Your task to perform on an android device: Open notification settings Image 0: 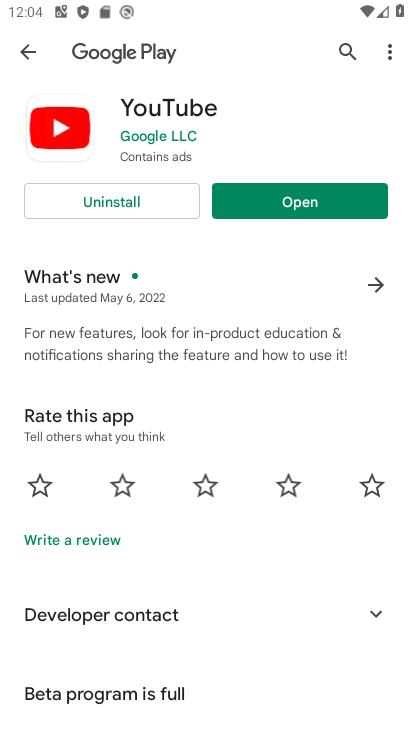
Step 0: press home button
Your task to perform on an android device: Open notification settings Image 1: 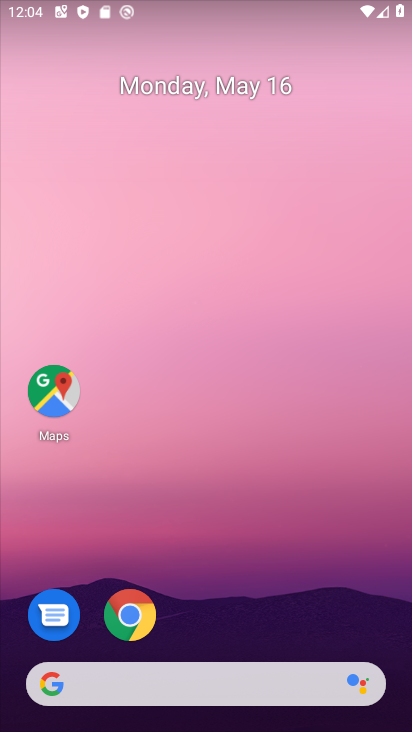
Step 1: drag from (100, 623) to (197, 0)
Your task to perform on an android device: Open notification settings Image 2: 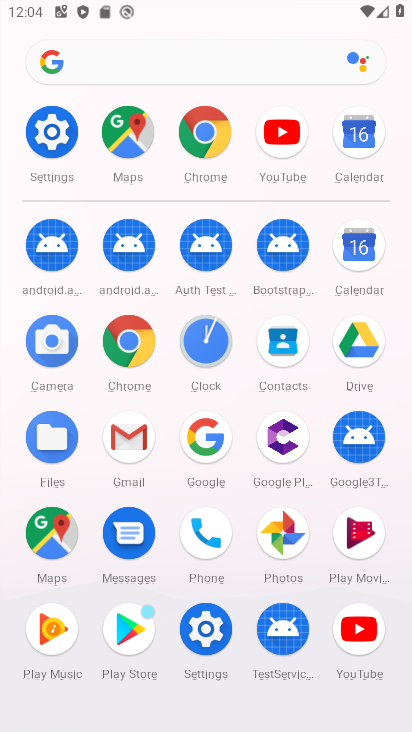
Step 2: click (57, 130)
Your task to perform on an android device: Open notification settings Image 3: 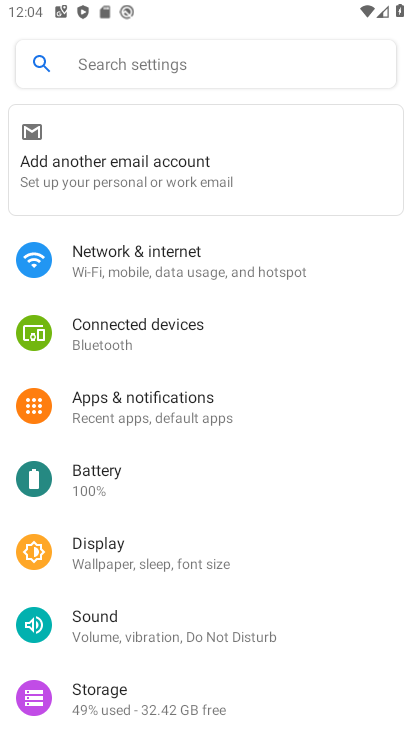
Step 3: click (138, 423)
Your task to perform on an android device: Open notification settings Image 4: 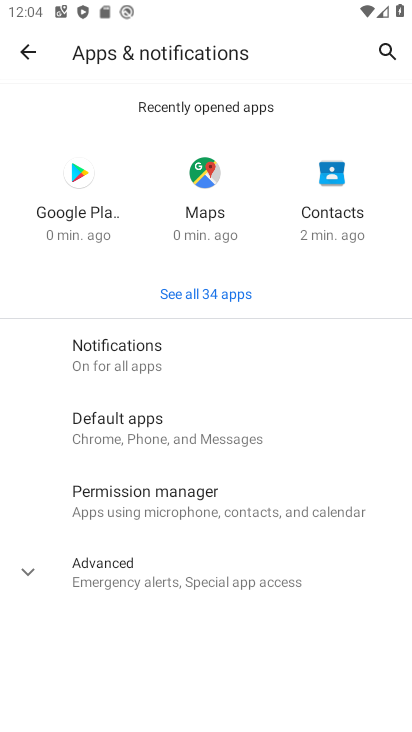
Step 4: task complete